Your task to perform on an android device: turn on data saver in the chrome app Image 0: 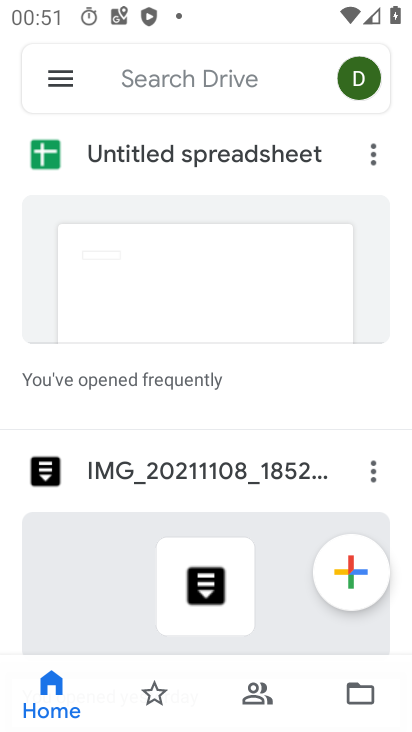
Step 0: task complete